Your task to perform on an android device: What's on my calendar today? Image 0: 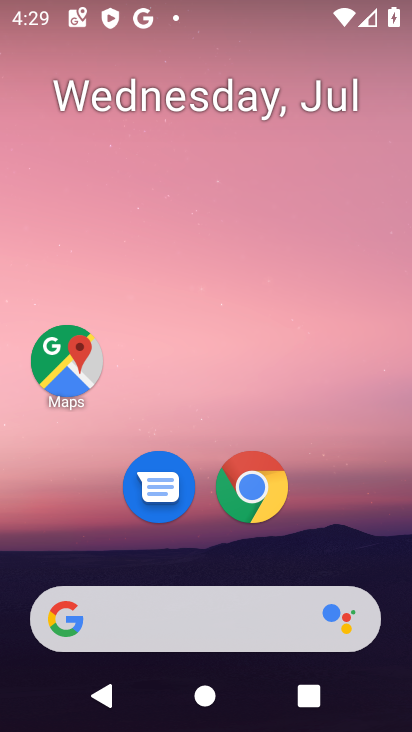
Step 0: drag from (181, 562) to (244, 11)
Your task to perform on an android device: What's on my calendar today? Image 1: 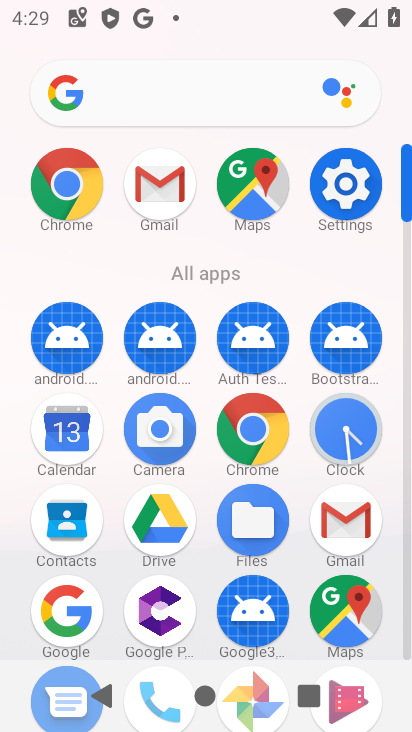
Step 1: click (53, 435)
Your task to perform on an android device: What's on my calendar today? Image 2: 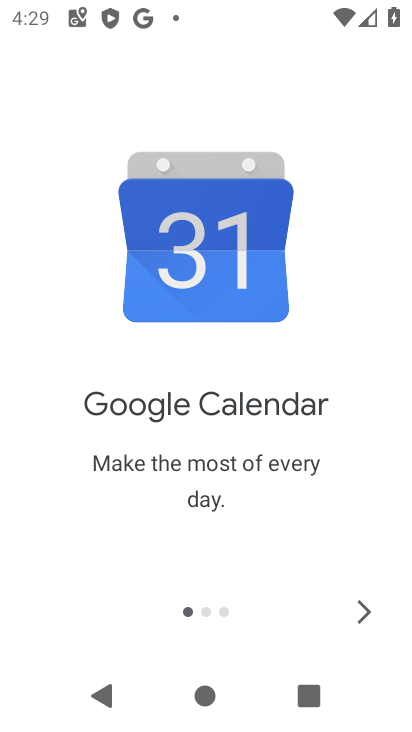
Step 2: click (375, 601)
Your task to perform on an android device: What's on my calendar today? Image 3: 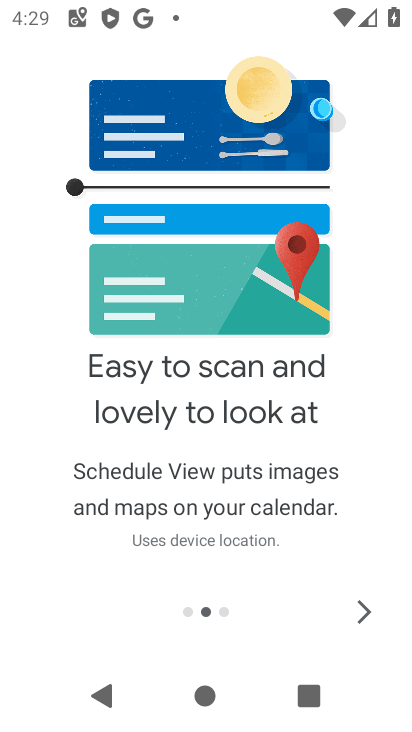
Step 3: click (384, 605)
Your task to perform on an android device: What's on my calendar today? Image 4: 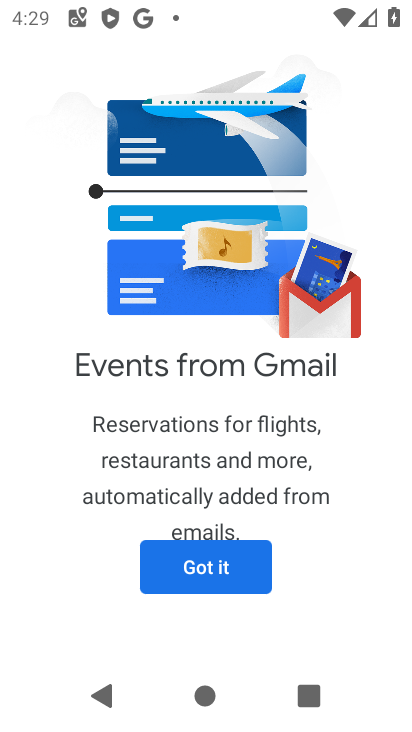
Step 4: click (219, 583)
Your task to perform on an android device: What's on my calendar today? Image 5: 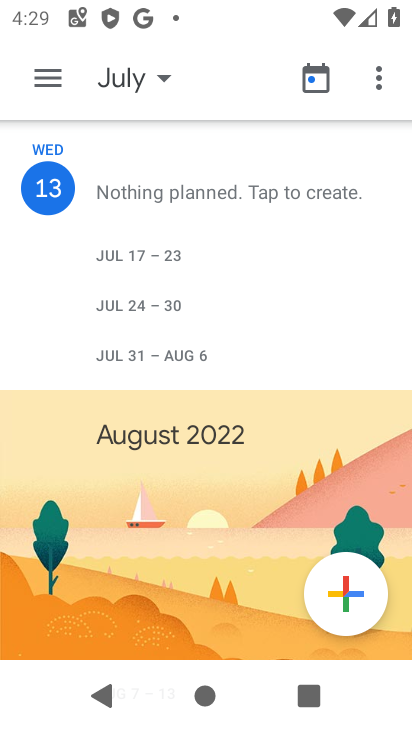
Step 5: drag from (188, 211) to (169, 503)
Your task to perform on an android device: What's on my calendar today? Image 6: 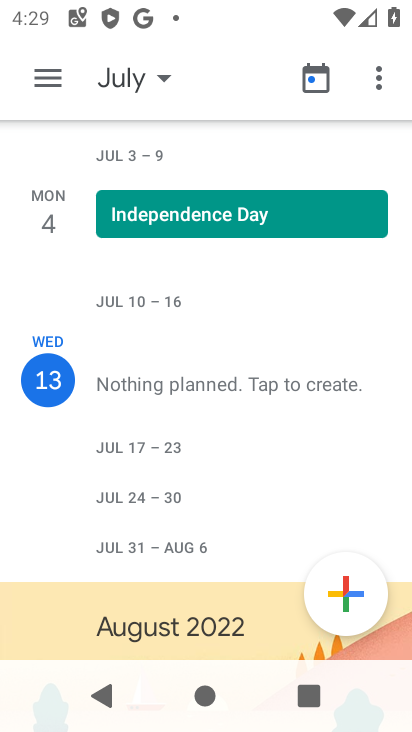
Step 6: click (40, 73)
Your task to perform on an android device: What's on my calendar today? Image 7: 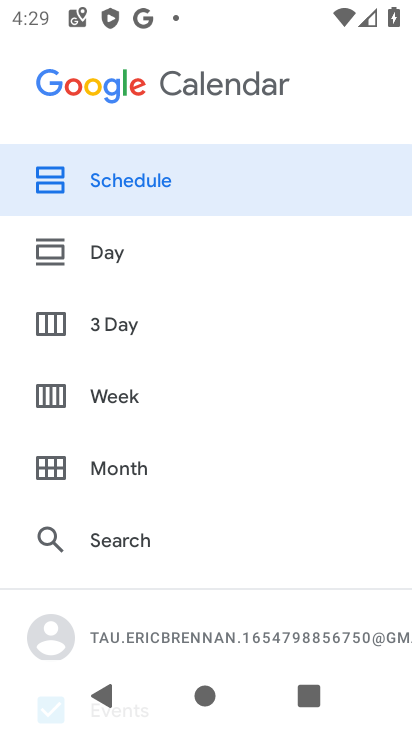
Step 7: click (113, 184)
Your task to perform on an android device: What's on my calendar today? Image 8: 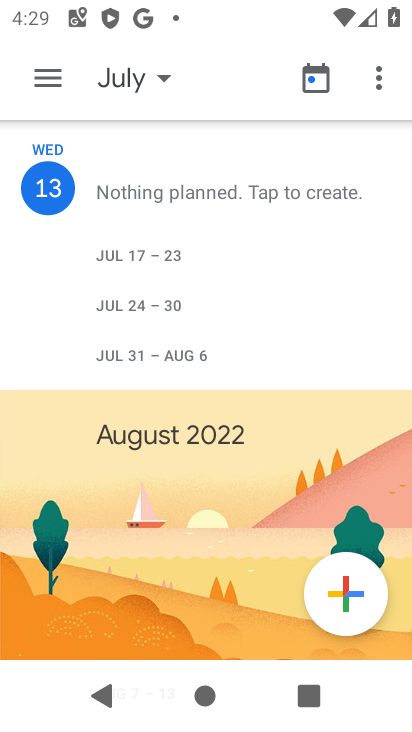
Step 8: task complete